Your task to perform on an android device: Empty the shopping cart on ebay.com. Add duracell triple a to the cart on ebay.com Image 0: 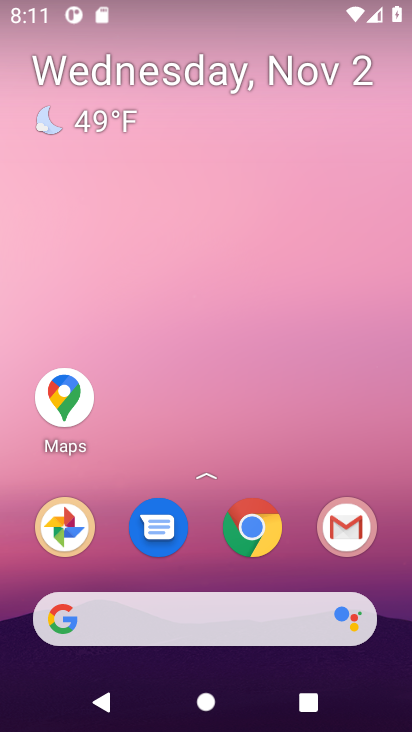
Step 0: click (251, 548)
Your task to perform on an android device: Empty the shopping cart on ebay.com. Add duracell triple a to the cart on ebay.com Image 1: 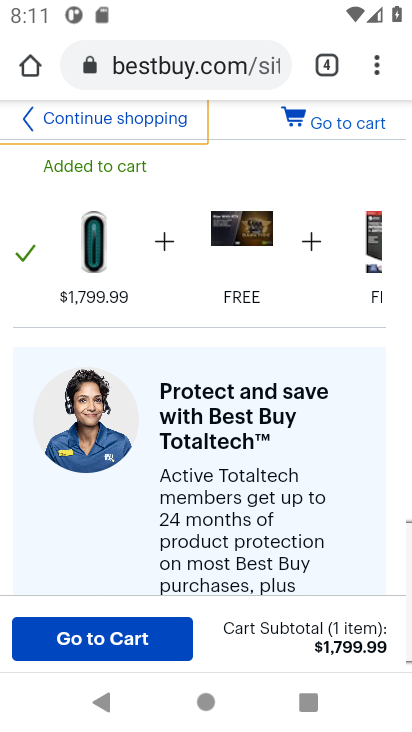
Step 1: click (178, 64)
Your task to perform on an android device: Empty the shopping cart on ebay.com. Add duracell triple a to the cart on ebay.com Image 2: 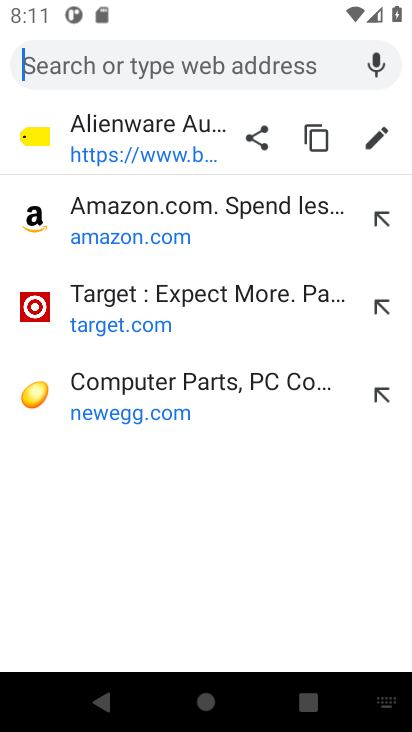
Step 2: type "ebay"
Your task to perform on an android device: Empty the shopping cart on ebay.com. Add duracell triple a to the cart on ebay.com Image 3: 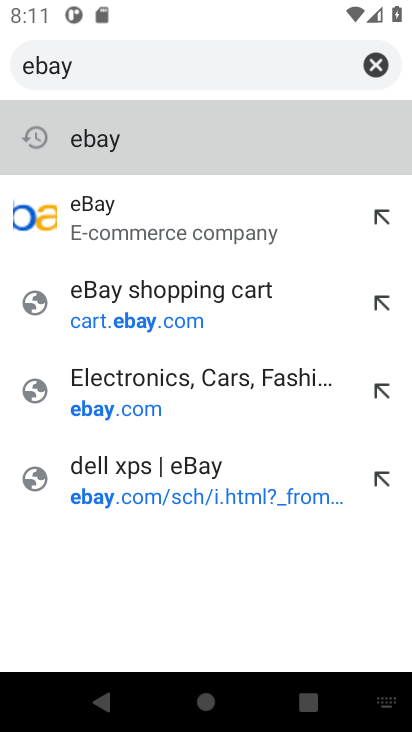
Step 3: click (249, 228)
Your task to perform on an android device: Empty the shopping cart on ebay.com. Add duracell triple a to the cart on ebay.com Image 4: 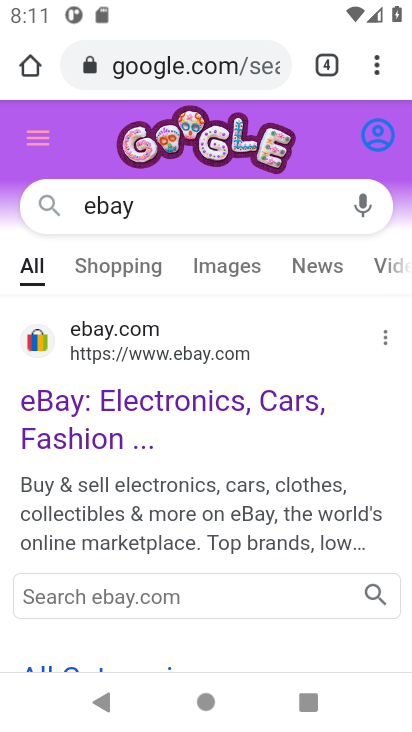
Step 4: click (177, 401)
Your task to perform on an android device: Empty the shopping cart on ebay.com. Add duracell triple a to the cart on ebay.com Image 5: 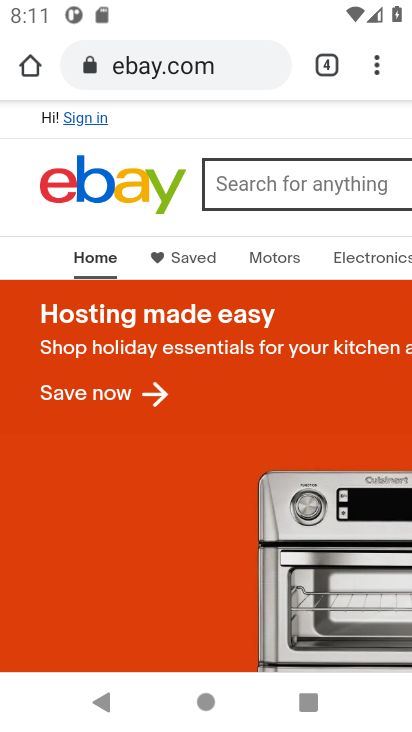
Step 5: drag from (369, 227) to (26, 197)
Your task to perform on an android device: Empty the shopping cart on ebay.com. Add duracell triple a to the cart on ebay.com Image 6: 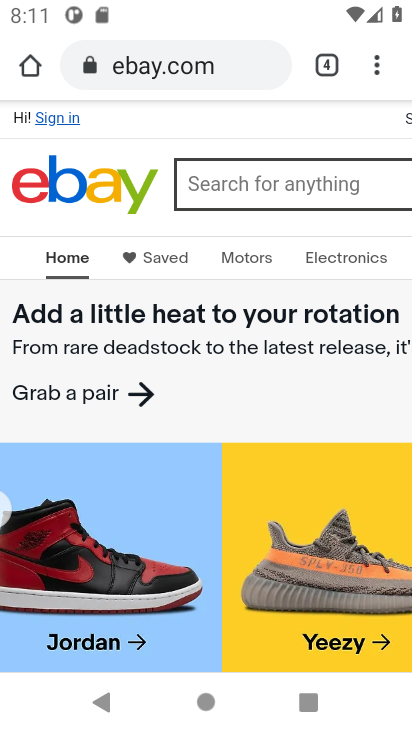
Step 6: drag from (355, 228) to (10, 265)
Your task to perform on an android device: Empty the shopping cart on ebay.com. Add duracell triple a to the cart on ebay.com Image 7: 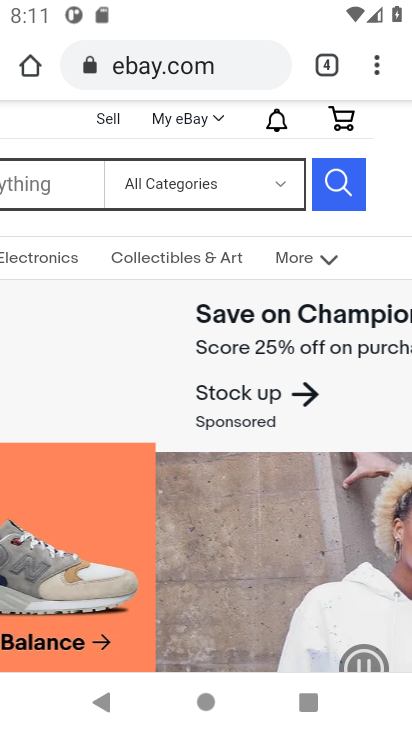
Step 7: click (346, 122)
Your task to perform on an android device: Empty the shopping cart on ebay.com. Add duracell triple a to the cart on ebay.com Image 8: 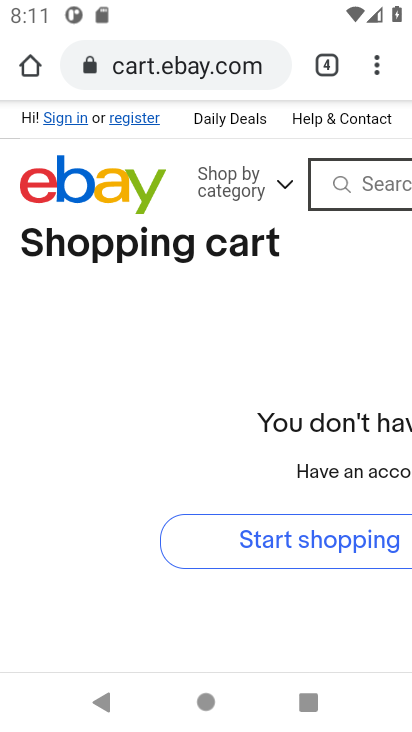
Step 8: click (358, 188)
Your task to perform on an android device: Empty the shopping cart on ebay.com. Add duracell triple a to the cart on ebay.com Image 9: 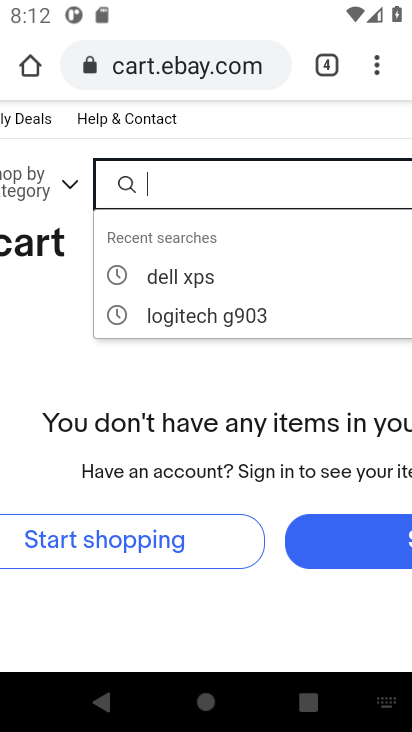
Step 9: type "duracell triple a"
Your task to perform on an android device: Empty the shopping cart on ebay.com. Add duracell triple a to the cart on ebay.com Image 10: 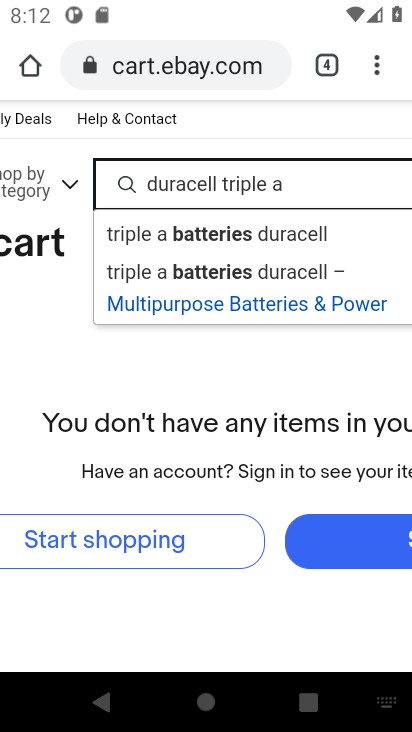
Step 10: press enter
Your task to perform on an android device: Empty the shopping cart on ebay.com. Add duracell triple a to the cart on ebay.com Image 11: 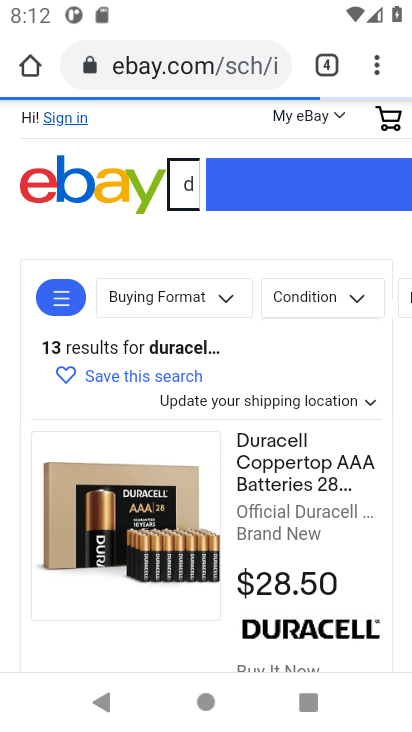
Step 11: click (293, 469)
Your task to perform on an android device: Empty the shopping cart on ebay.com. Add duracell triple a to the cart on ebay.com Image 12: 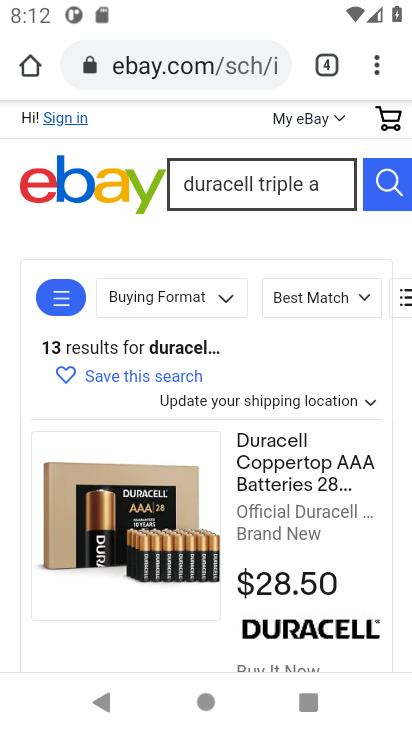
Step 12: click (259, 463)
Your task to perform on an android device: Empty the shopping cart on ebay.com. Add duracell triple a to the cart on ebay.com Image 13: 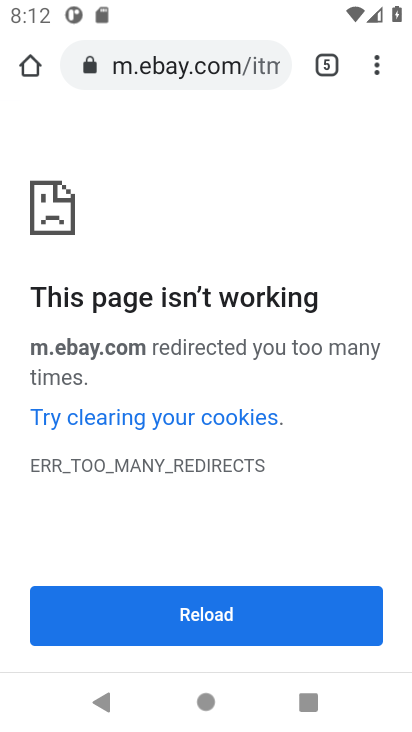
Step 13: press back button
Your task to perform on an android device: Empty the shopping cart on ebay.com. Add duracell triple a to the cart on ebay.com Image 14: 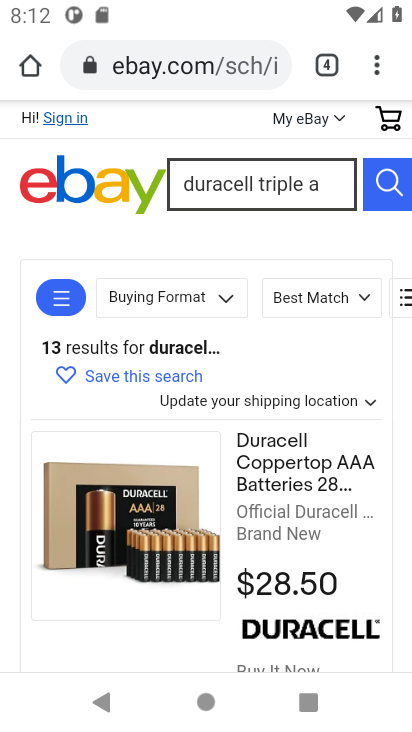
Step 14: drag from (401, 435) to (409, 0)
Your task to perform on an android device: Empty the shopping cart on ebay.com. Add duracell triple a to the cart on ebay.com Image 15: 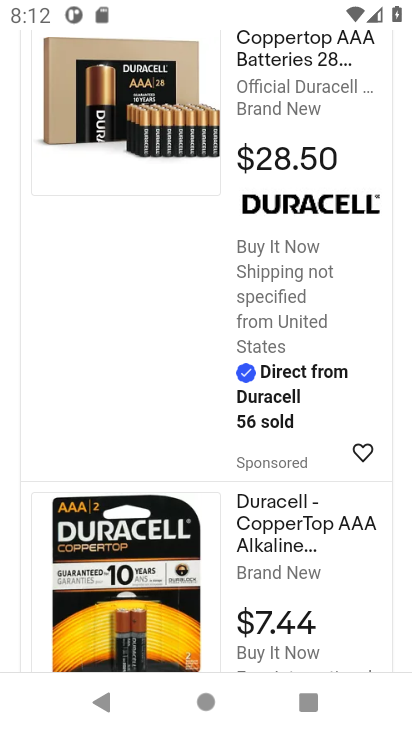
Step 15: click (321, 337)
Your task to perform on an android device: Empty the shopping cart on ebay.com. Add duracell triple a to the cart on ebay.com Image 16: 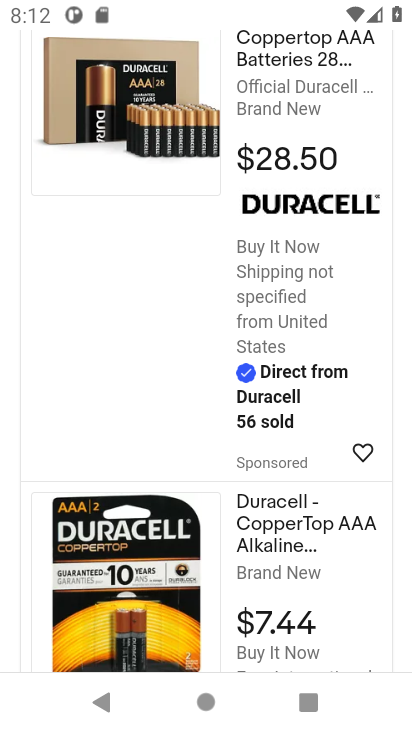
Step 16: click (178, 133)
Your task to perform on an android device: Empty the shopping cart on ebay.com. Add duracell triple a to the cart on ebay.com Image 17: 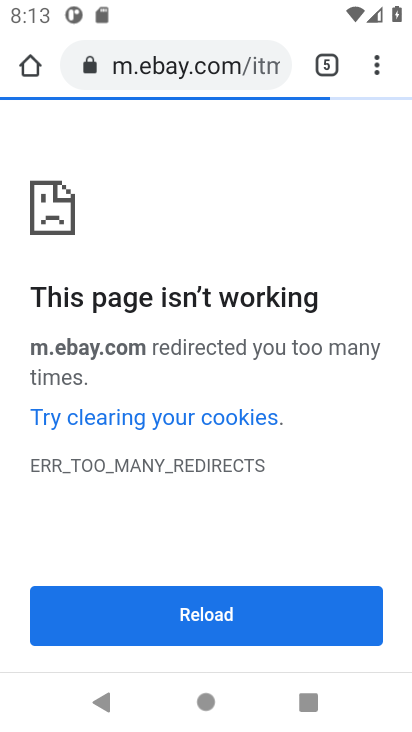
Step 17: click (198, 627)
Your task to perform on an android device: Empty the shopping cart on ebay.com. Add duracell triple a to the cart on ebay.com Image 18: 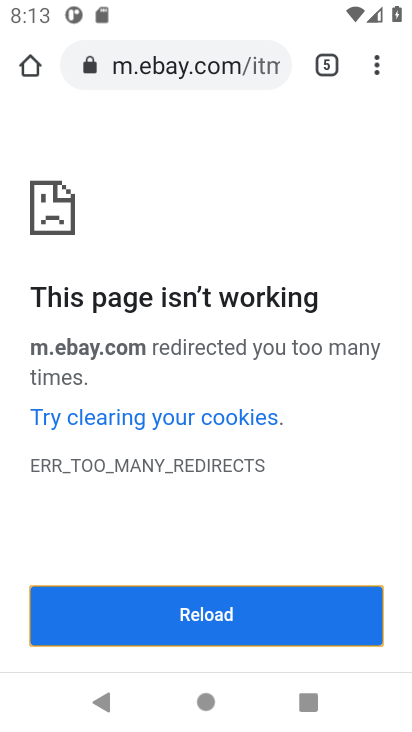
Step 18: task complete